Your task to perform on an android device: toggle priority inbox in the gmail app Image 0: 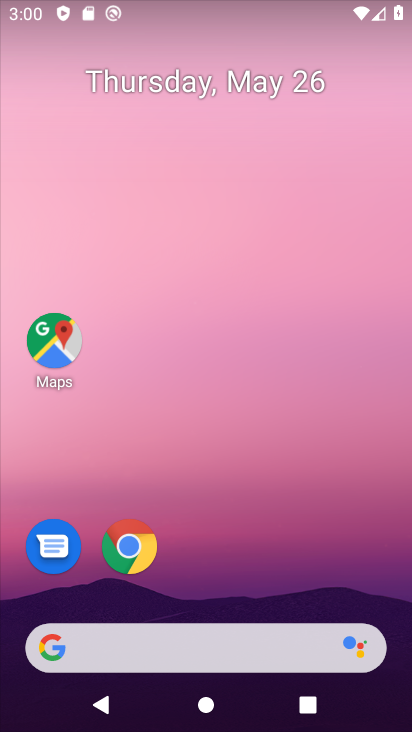
Step 0: drag from (202, 588) to (249, 92)
Your task to perform on an android device: toggle priority inbox in the gmail app Image 1: 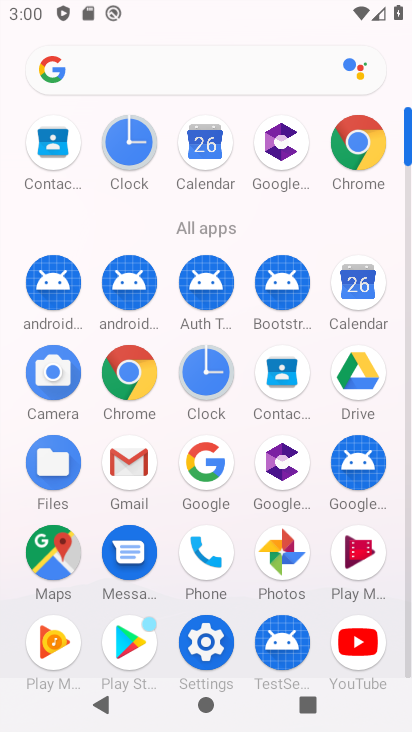
Step 1: click (119, 472)
Your task to perform on an android device: toggle priority inbox in the gmail app Image 2: 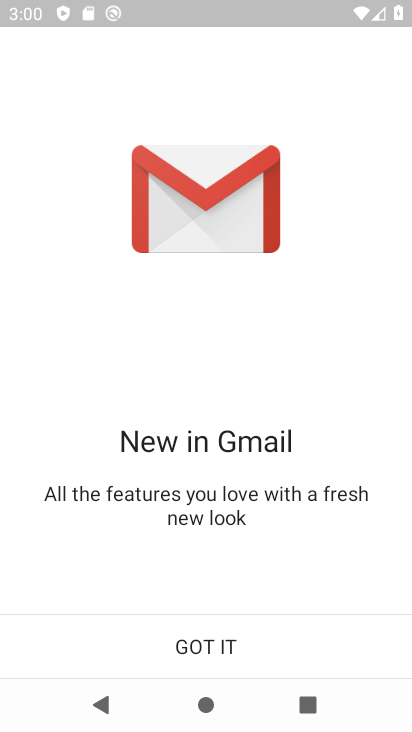
Step 2: click (218, 648)
Your task to perform on an android device: toggle priority inbox in the gmail app Image 3: 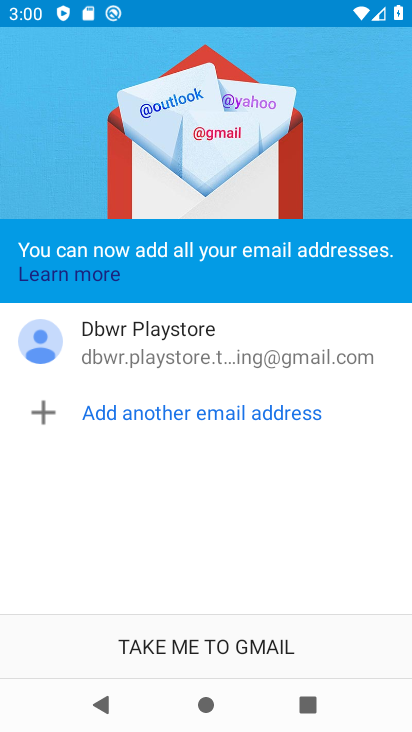
Step 3: click (216, 651)
Your task to perform on an android device: toggle priority inbox in the gmail app Image 4: 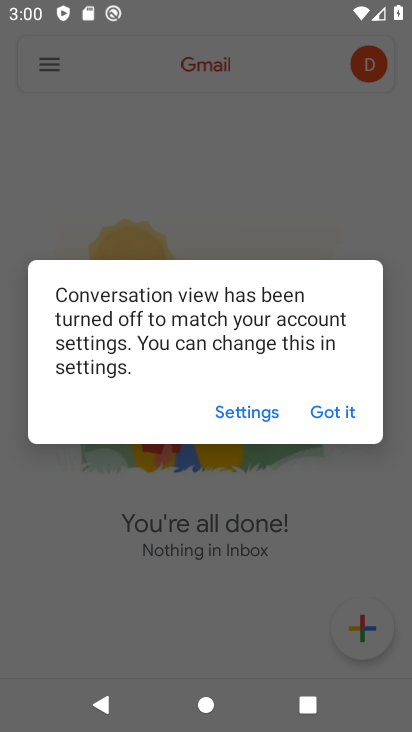
Step 4: click (337, 442)
Your task to perform on an android device: toggle priority inbox in the gmail app Image 5: 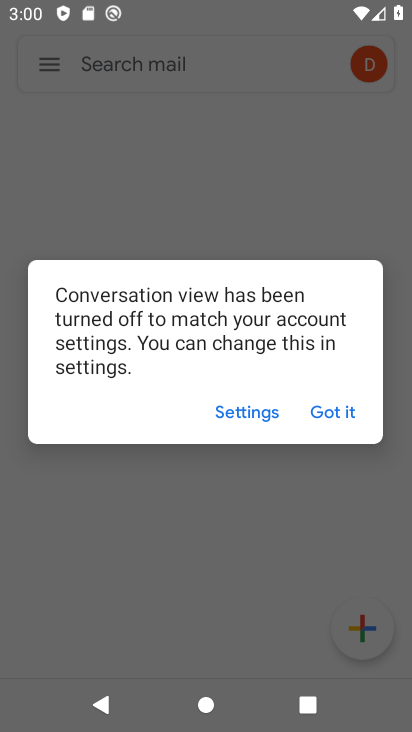
Step 5: click (345, 420)
Your task to perform on an android device: toggle priority inbox in the gmail app Image 6: 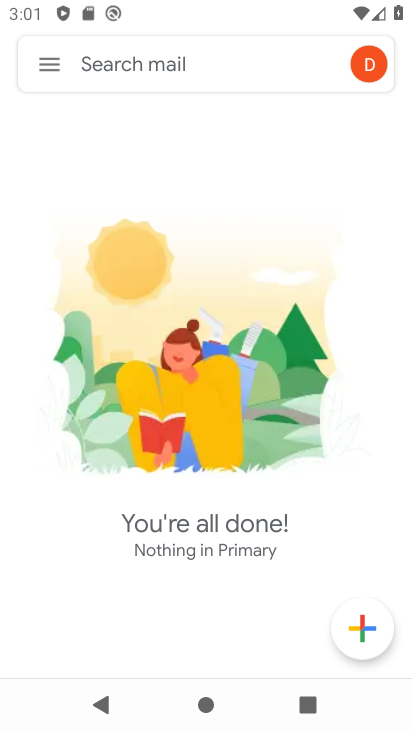
Step 6: click (58, 49)
Your task to perform on an android device: toggle priority inbox in the gmail app Image 7: 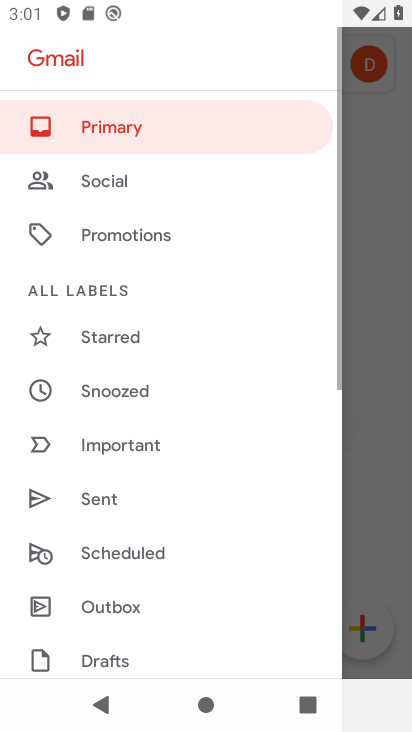
Step 7: drag from (197, 645) to (250, 89)
Your task to perform on an android device: toggle priority inbox in the gmail app Image 8: 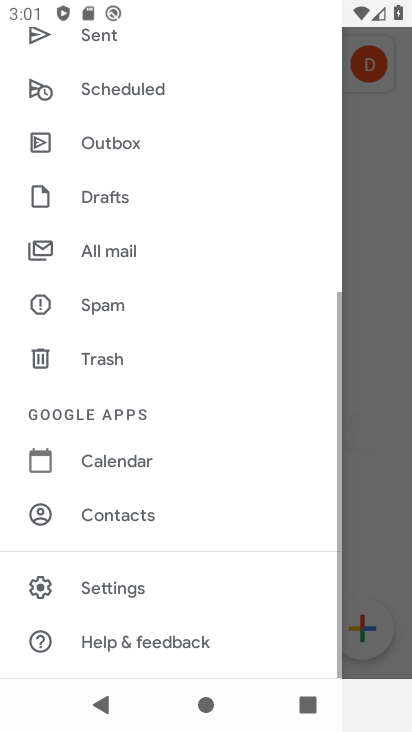
Step 8: click (118, 583)
Your task to perform on an android device: toggle priority inbox in the gmail app Image 9: 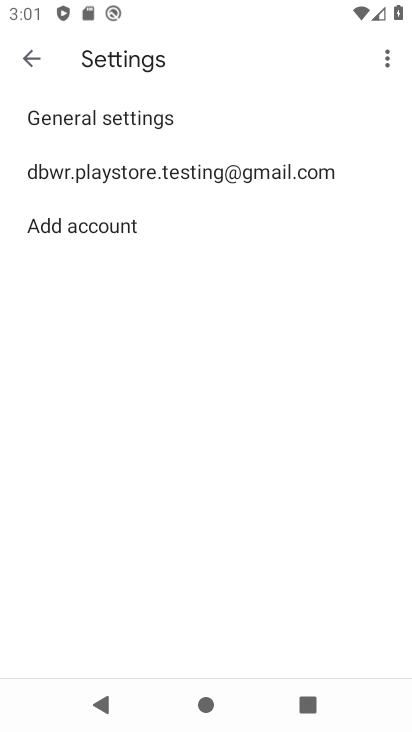
Step 9: click (113, 172)
Your task to perform on an android device: toggle priority inbox in the gmail app Image 10: 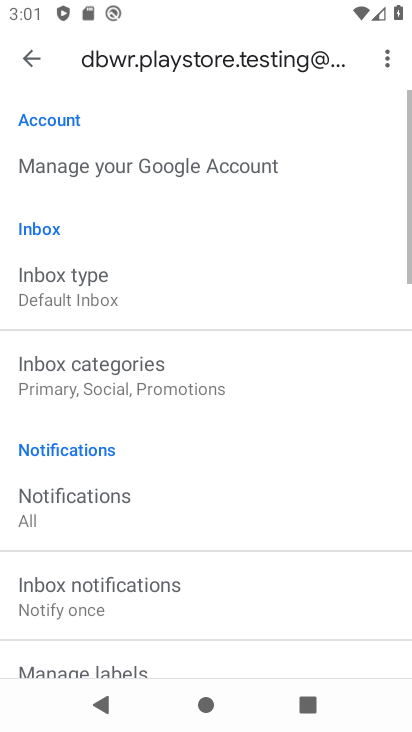
Step 10: click (121, 315)
Your task to perform on an android device: toggle priority inbox in the gmail app Image 11: 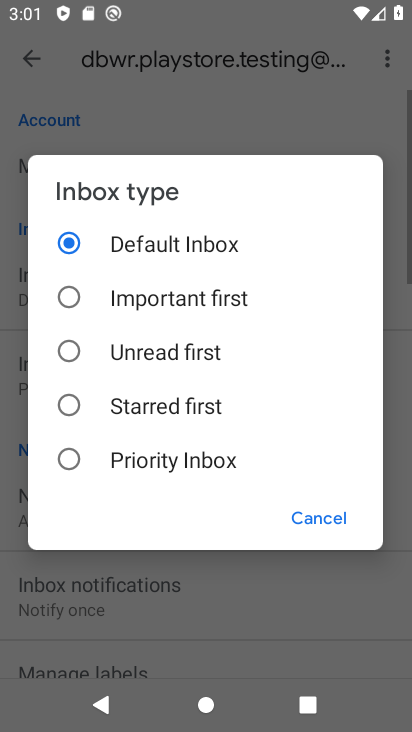
Step 11: click (69, 462)
Your task to perform on an android device: toggle priority inbox in the gmail app Image 12: 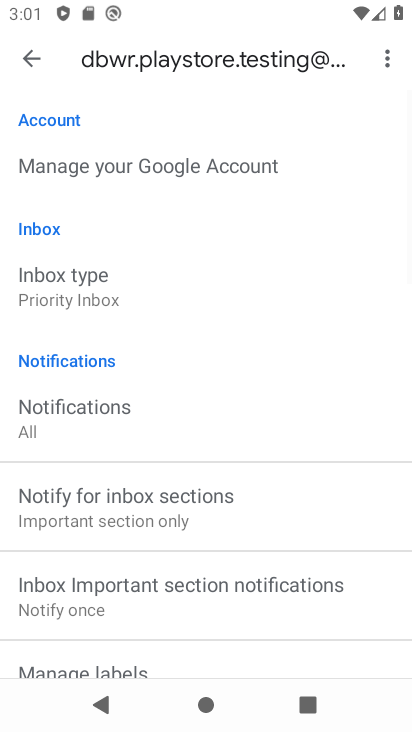
Step 12: task complete